Your task to perform on an android device: Open battery settings Image 0: 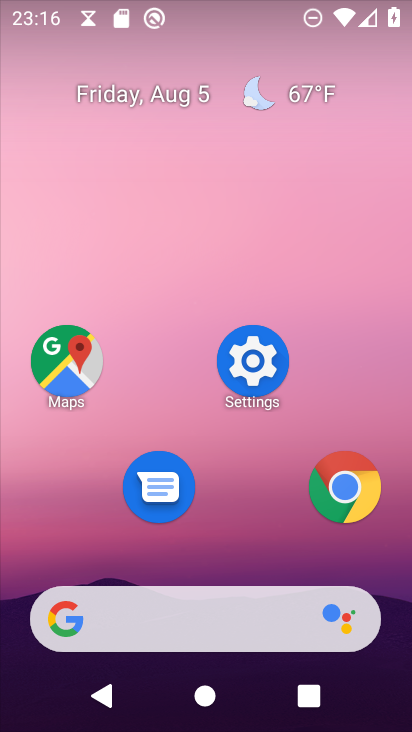
Step 0: click (254, 357)
Your task to perform on an android device: Open battery settings Image 1: 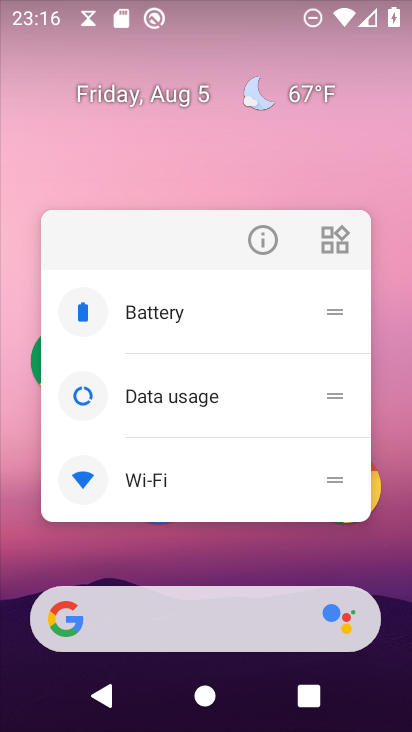
Step 1: click (371, 165)
Your task to perform on an android device: Open battery settings Image 2: 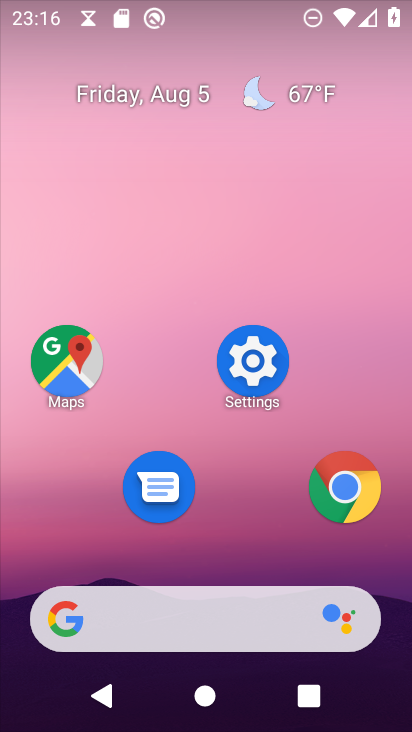
Step 2: click (258, 364)
Your task to perform on an android device: Open battery settings Image 3: 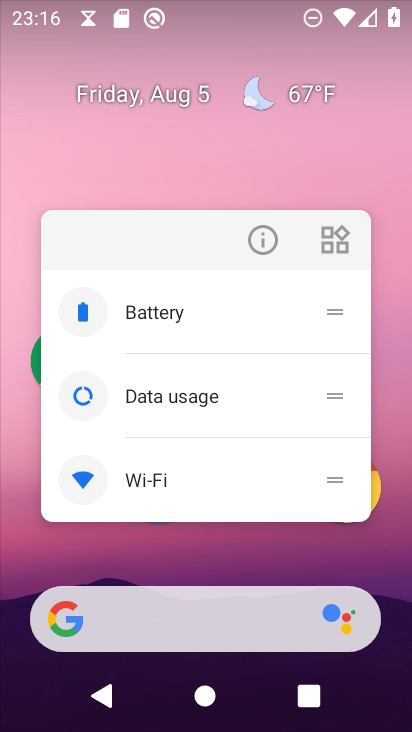
Step 3: click (390, 203)
Your task to perform on an android device: Open battery settings Image 4: 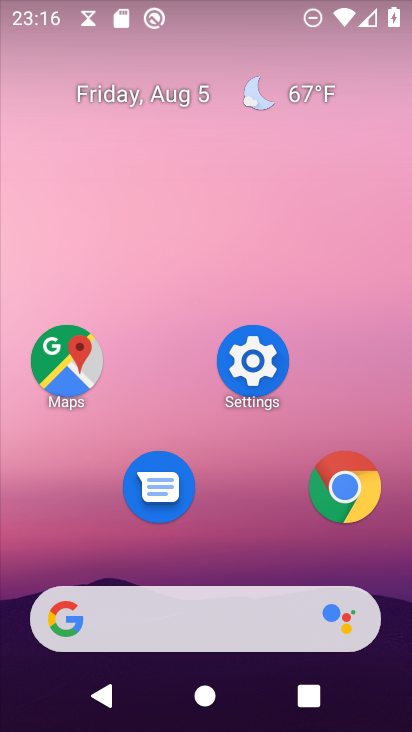
Step 4: click (248, 362)
Your task to perform on an android device: Open battery settings Image 5: 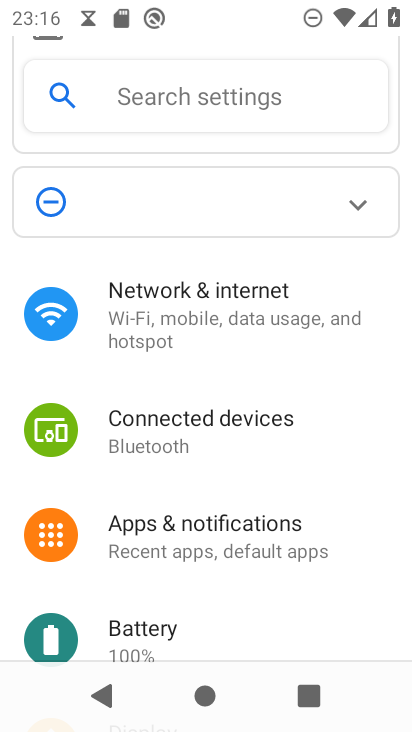
Step 5: drag from (201, 606) to (279, 318)
Your task to perform on an android device: Open battery settings Image 6: 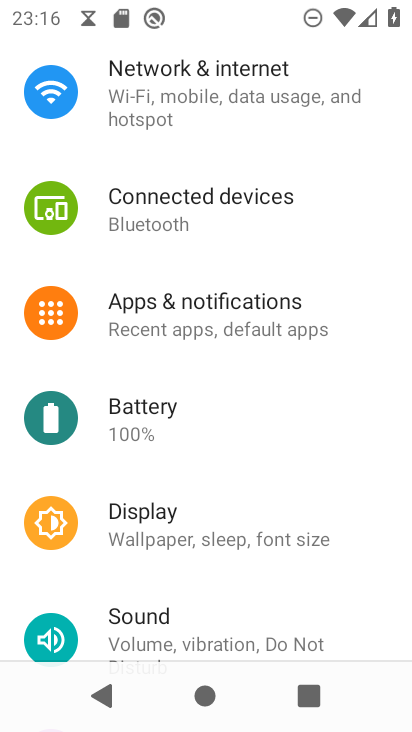
Step 6: click (149, 420)
Your task to perform on an android device: Open battery settings Image 7: 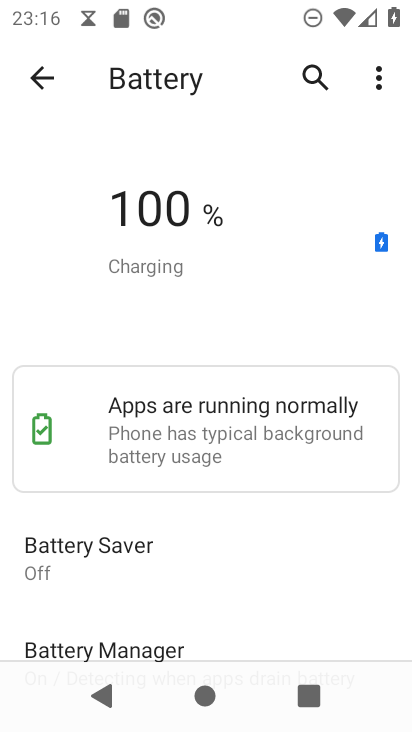
Step 7: task complete